Your task to perform on an android device: Open eBay Image 0: 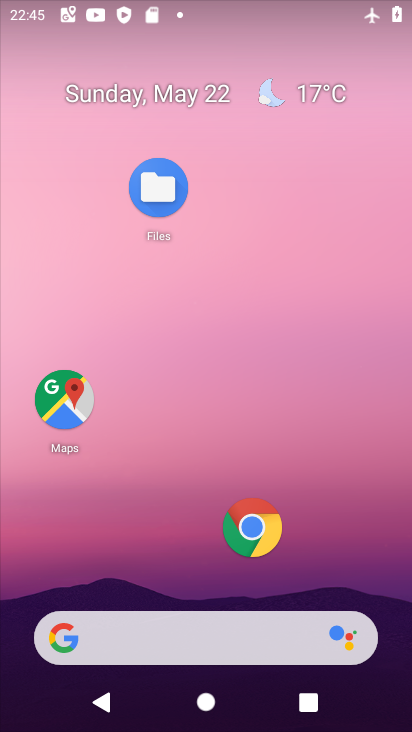
Step 0: click (265, 533)
Your task to perform on an android device: Open eBay Image 1: 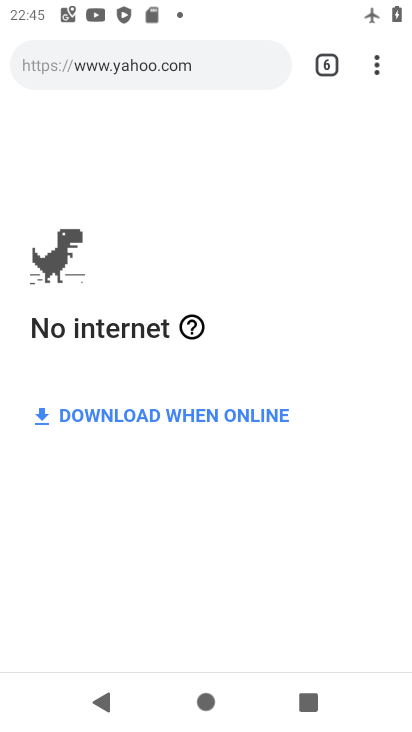
Step 1: click (377, 68)
Your task to perform on an android device: Open eBay Image 2: 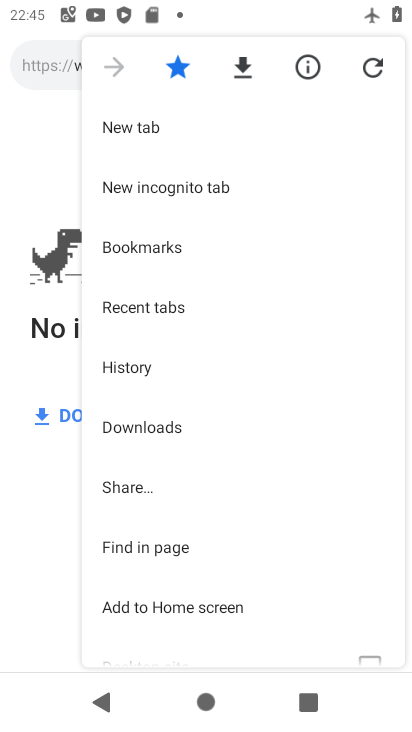
Step 2: click (129, 123)
Your task to perform on an android device: Open eBay Image 3: 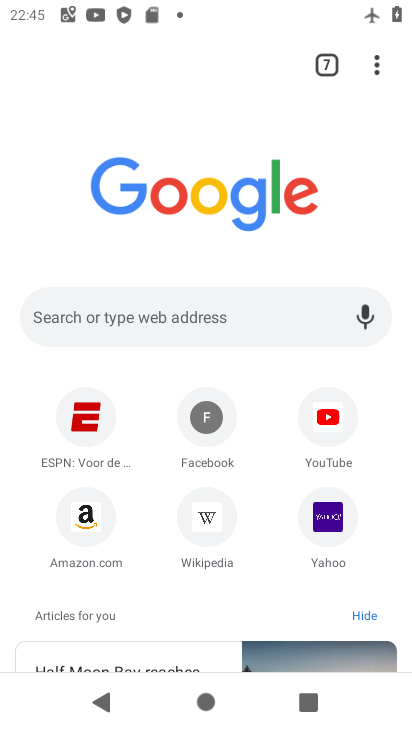
Step 3: click (196, 317)
Your task to perform on an android device: Open eBay Image 4: 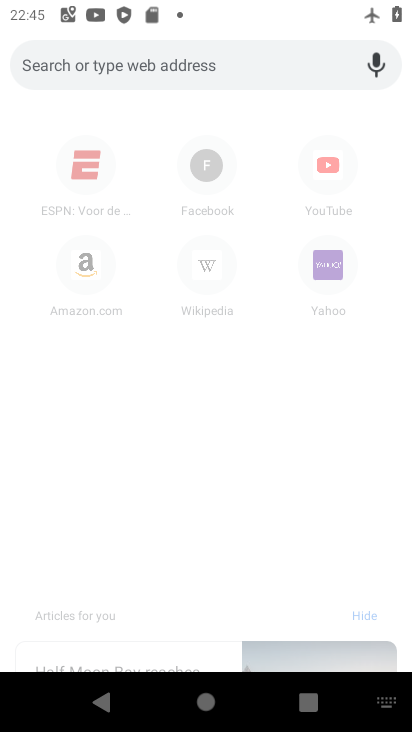
Step 4: type "ebay"
Your task to perform on an android device: Open eBay Image 5: 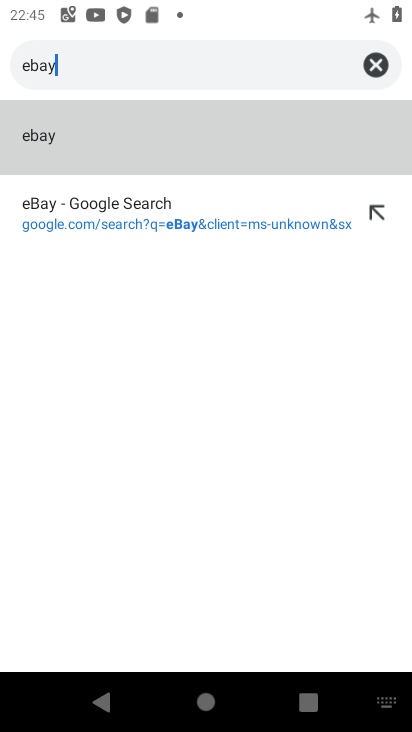
Step 5: click (124, 194)
Your task to perform on an android device: Open eBay Image 6: 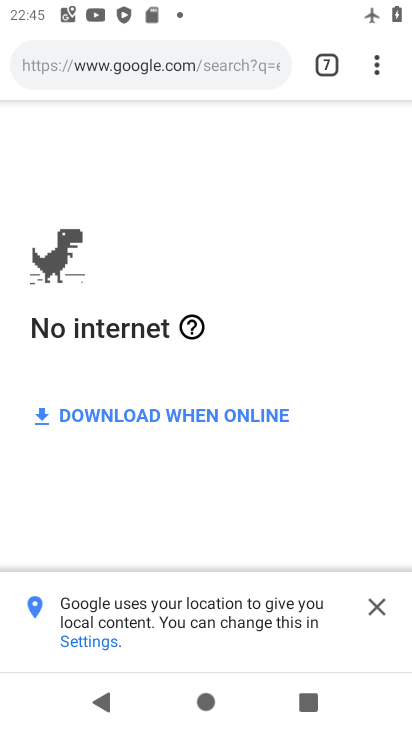
Step 6: task complete